Your task to perform on an android device: Open the phone app and click the voicemail tab. Image 0: 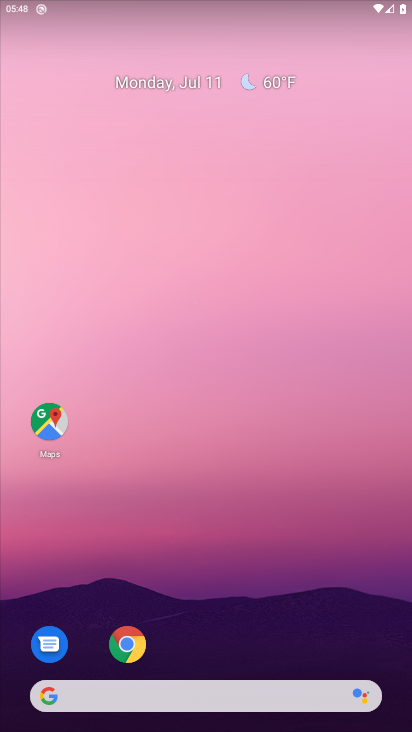
Step 0: drag from (189, 666) to (221, 430)
Your task to perform on an android device: Open the phone app and click the voicemail tab. Image 1: 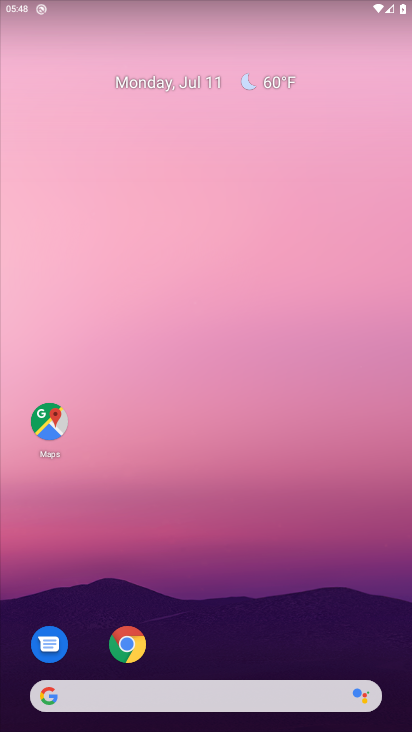
Step 1: drag from (155, 681) to (171, 362)
Your task to perform on an android device: Open the phone app and click the voicemail tab. Image 2: 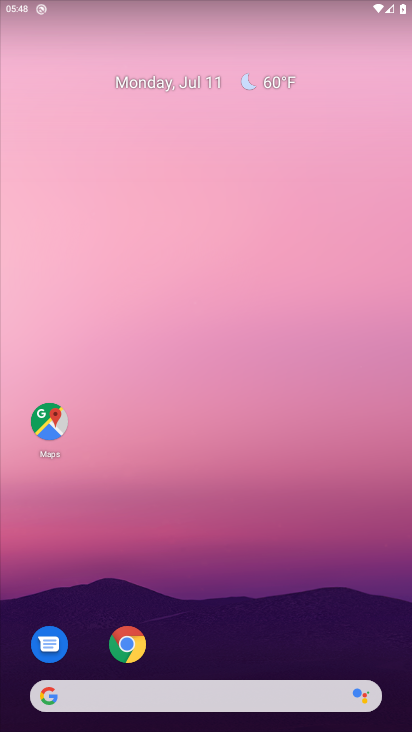
Step 2: drag from (221, 656) to (224, 195)
Your task to perform on an android device: Open the phone app and click the voicemail tab. Image 3: 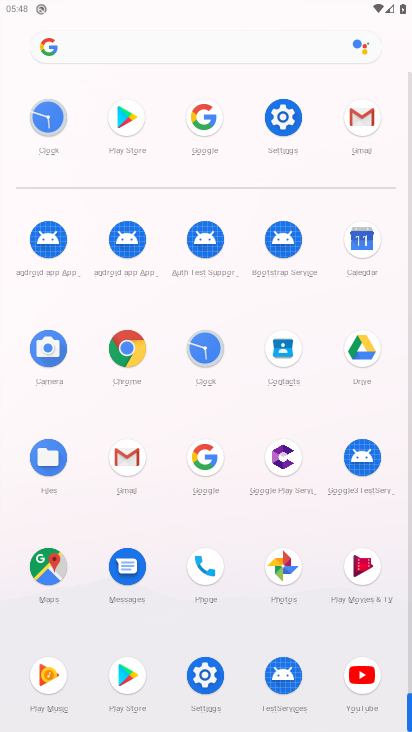
Step 3: click (198, 576)
Your task to perform on an android device: Open the phone app and click the voicemail tab. Image 4: 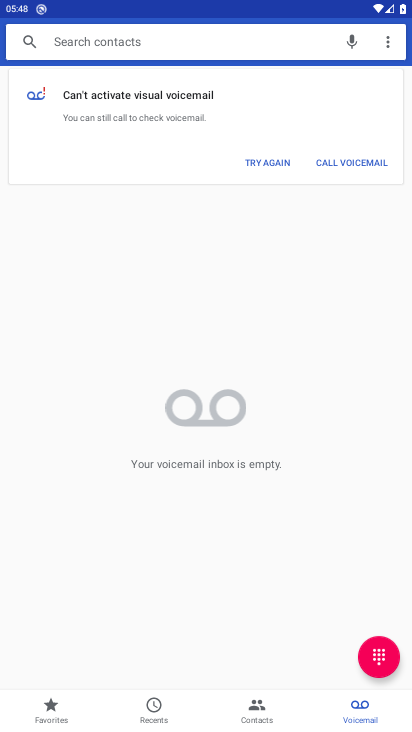
Step 4: click (345, 706)
Your task to perform on an android device: Open the phone app and click the voicemail tab. Image 5: 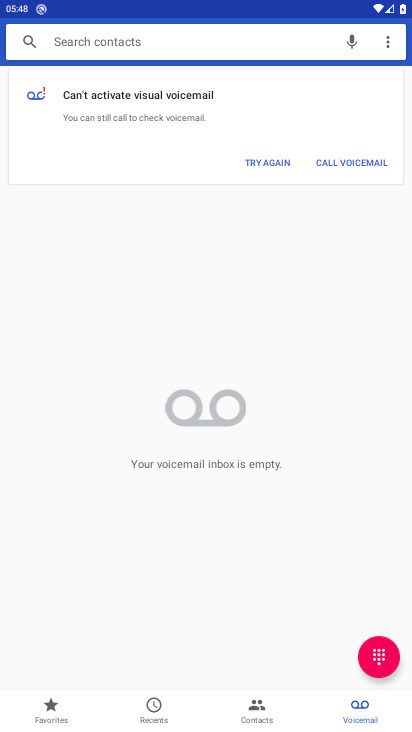
Step 5: click (344, 715)
Your task to perform on an android device: Open the phone app and click the voicemail tab. Image 6: 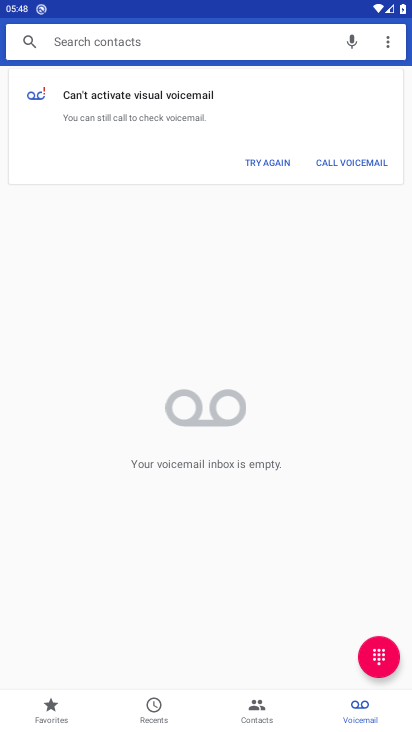
Step 6: task complete